Your task to perform on an android device: turn on improve location accuracy Image 0: 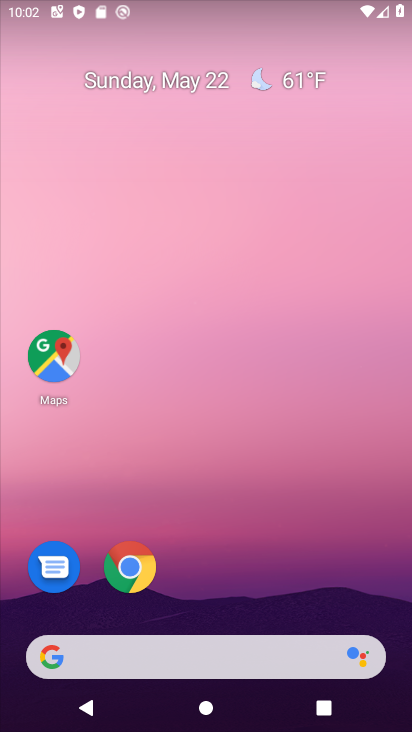
Step 0: drag from (208, 628) to (131, 2)
Your task to perform on an android device: turn on improve location accuracy Image 1: 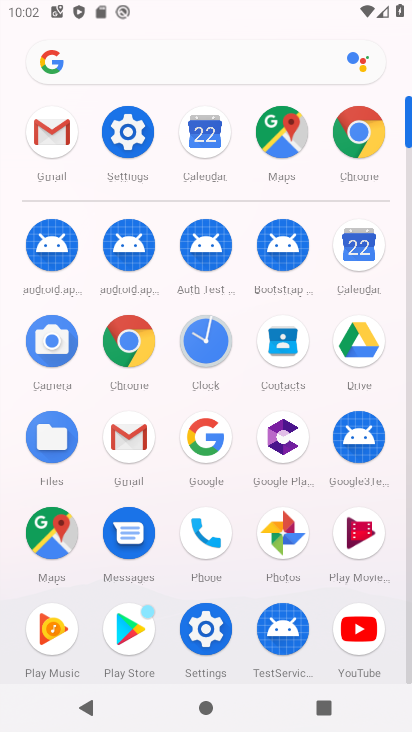
Step 1: click (135, 123)
Your task to perform on an android device: turn on improve location accuracy Image 2: 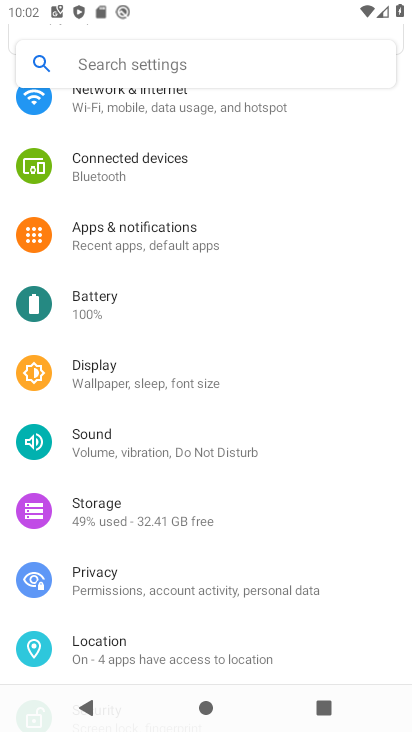
Step 2: click (127, 641)
Your task to perform on an android device: turn on improve location accuracy Image 3: 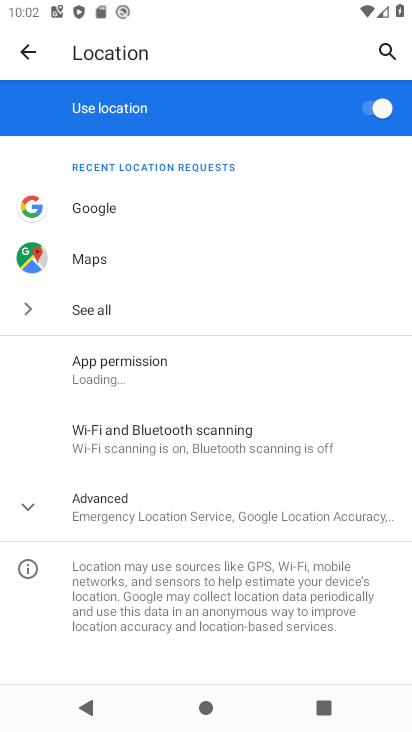
Step 3: click (59, 510)
Your task to perform on an android device: turn on improve location accuracy Image 4: 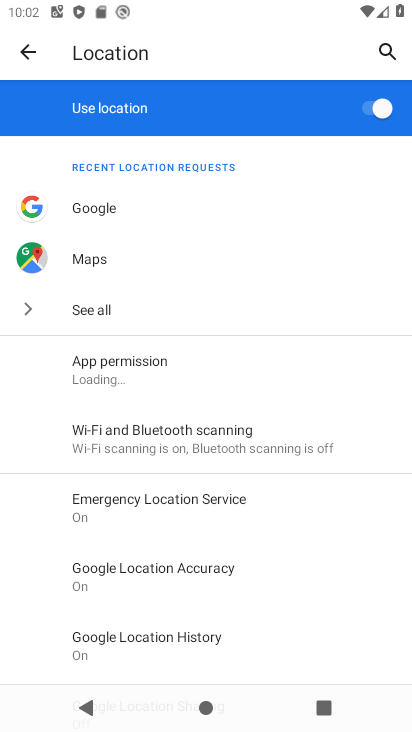
Step 4: click (178, 580)
Your task to perform on an android device: turn on improve location accuracy Image 5: 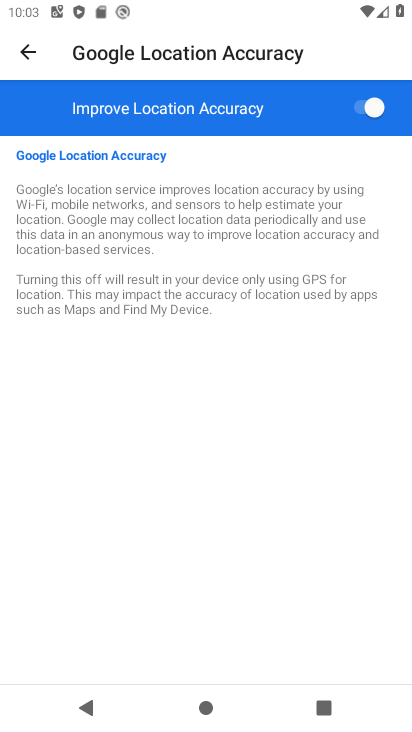
Step 5: task complete